Your task to perform on an android device: Go to Google maps Image 0: 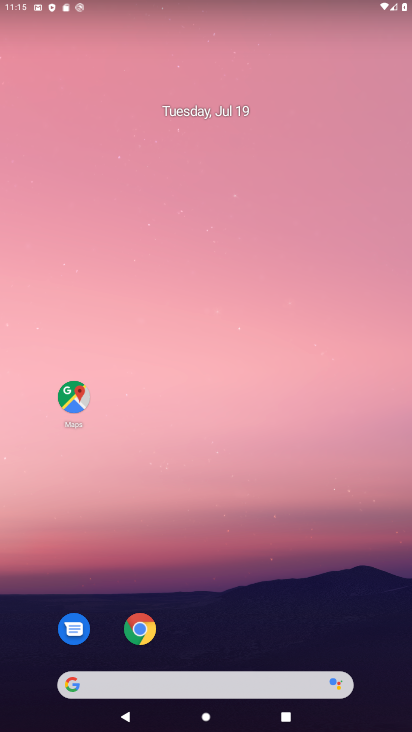
Step 0: drag from (327, 630) to (273, 96)
Your task to perform on an android device: Go to Google maps Image 1: 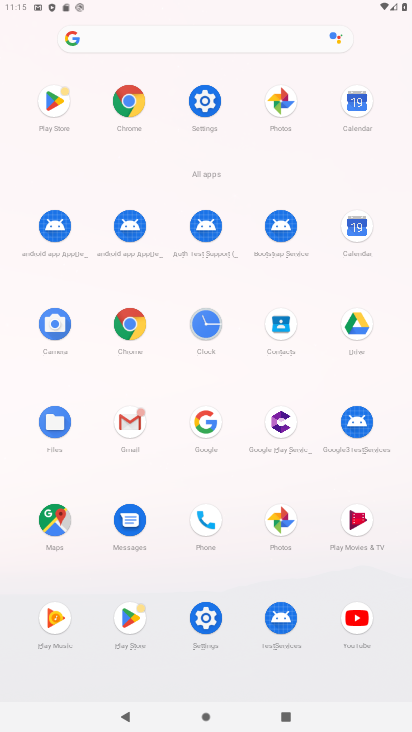
Step 1: click (43, 536)
Your task to perform on an android device: Go to Google maps Image 2: 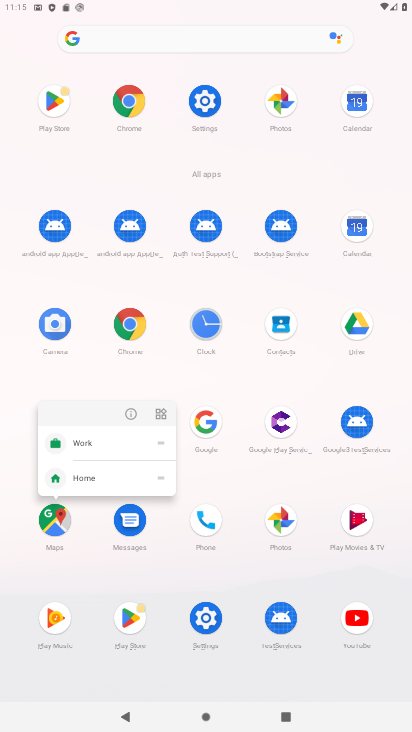
Step 2: click (43, 536)
Your task to perform on an android device: Go to Google maps Image 3: 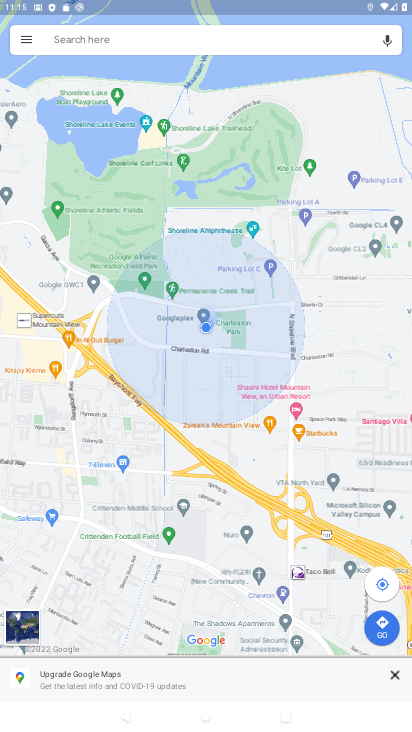
Step 3: task complete